Your task to perform on an android device: Clear the cart on amazon.com. Search for "alienware area 51" on amazon.com, select the first entry, add it to the cart, then select checkout. Image 0: 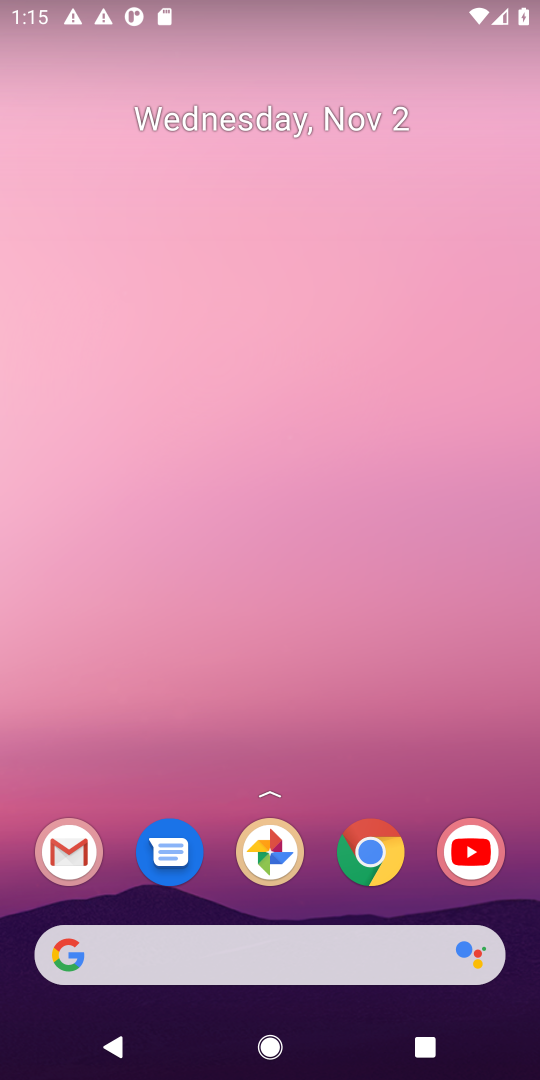
Step 0: press home button
Your task to perform on an android device: Clear the cart on amazon.com. Search for "alienware area 51" on amazon.com, select the first entry, add it to the cart, then select checkout. Image 1: 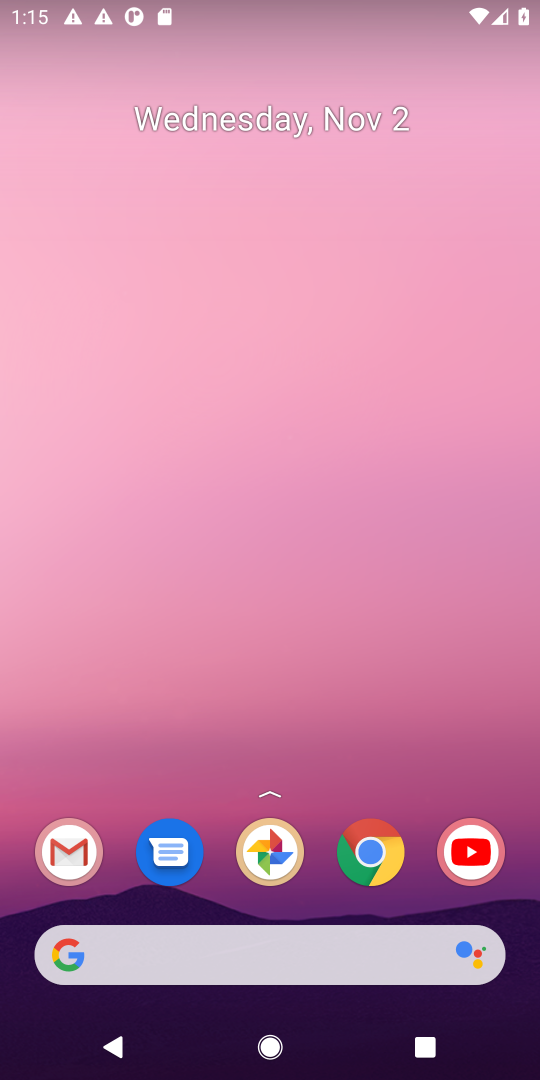
Step 1: click (67, 950)
Your task to perform on an android device: Clear the cart on amazon.com. Search for "alienware area 51" on amazon.com, select the first entry, add it to the cart, then select checkout. Image 2: 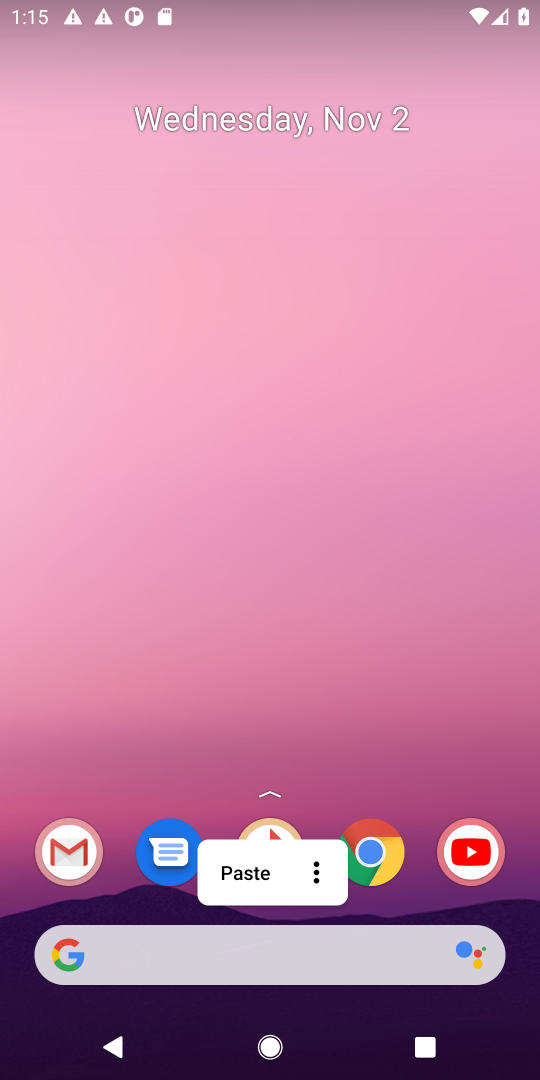
Step 2: click (71, 953)
Your task to perform on an android device: Clear the cart on amazon.com. Search for "alienware area 51" on amazon.com, select the first entry, add it to the cart, then select checkout. Image 3: 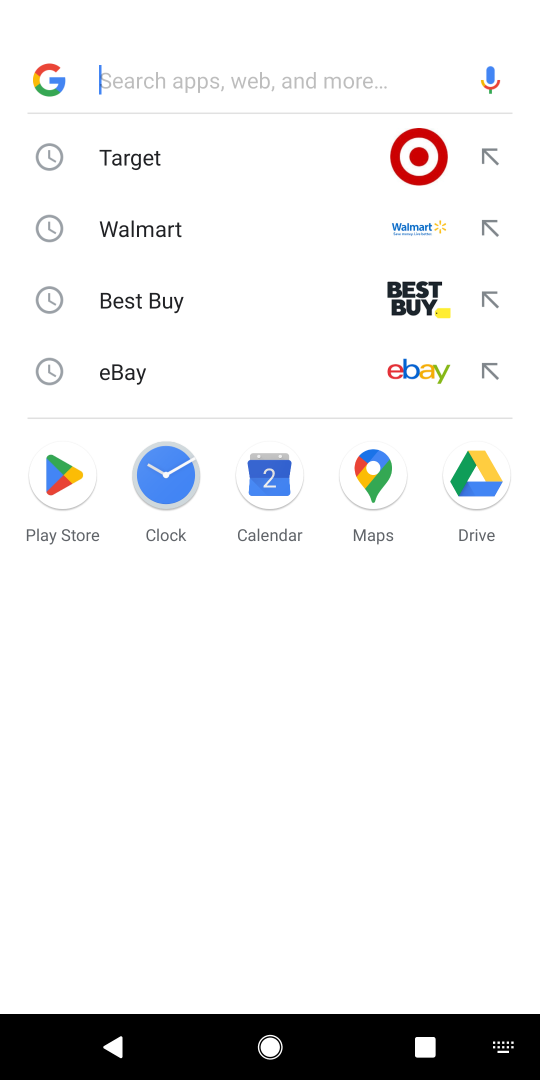
Step 3: type "amazon.com"
Your task to perform on an android device: Clear the cart on amazon.com. Search for "alienware area 51" on amazon.com, select the first entry, add it to the cart, then select checkout. Image 4: 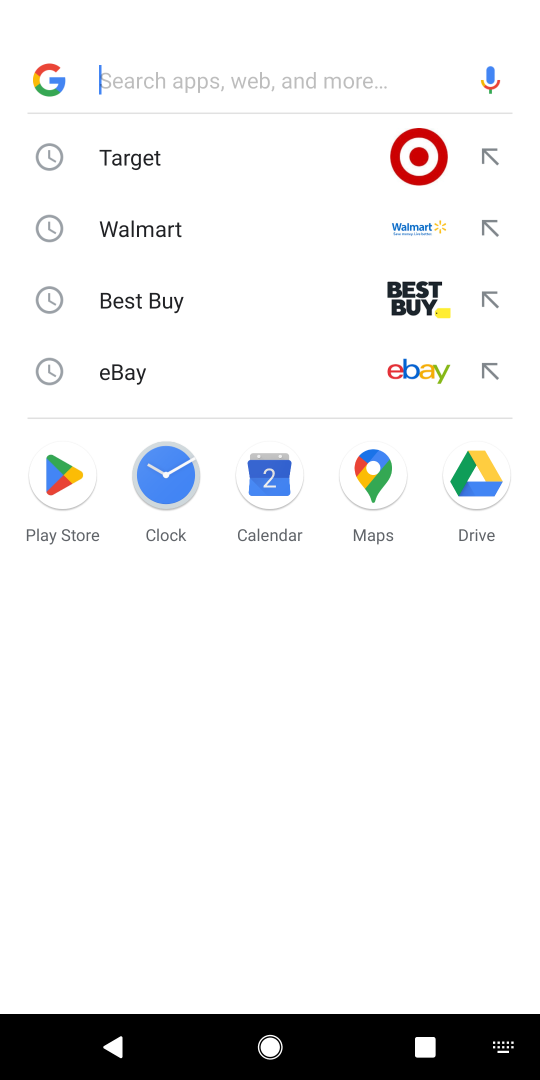
Step 4: click (152, 80)
Your task to perform on an android device: Clear the cart on amazon.com. Search for "alienware area 51" on amazon.com, select the first entry, add it to the cart, then select checkout. Image 5: 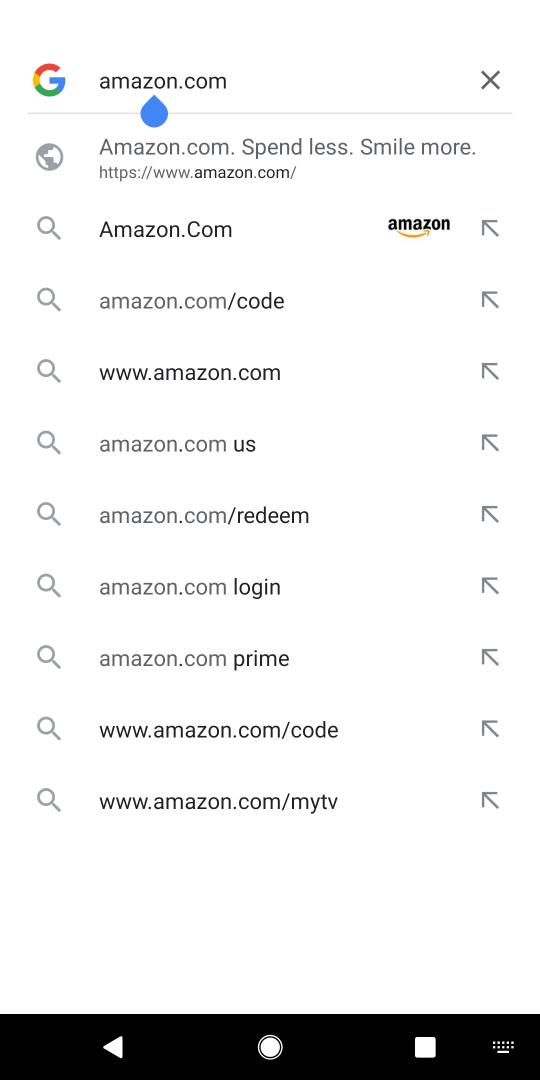
Step 5: press enter
Your task to perform on an android device: Clear the cart on amazon.com. Search for "alienware area 51" on amazon.com, select the first entry, add it to the cart, then select checkout. Image 6: 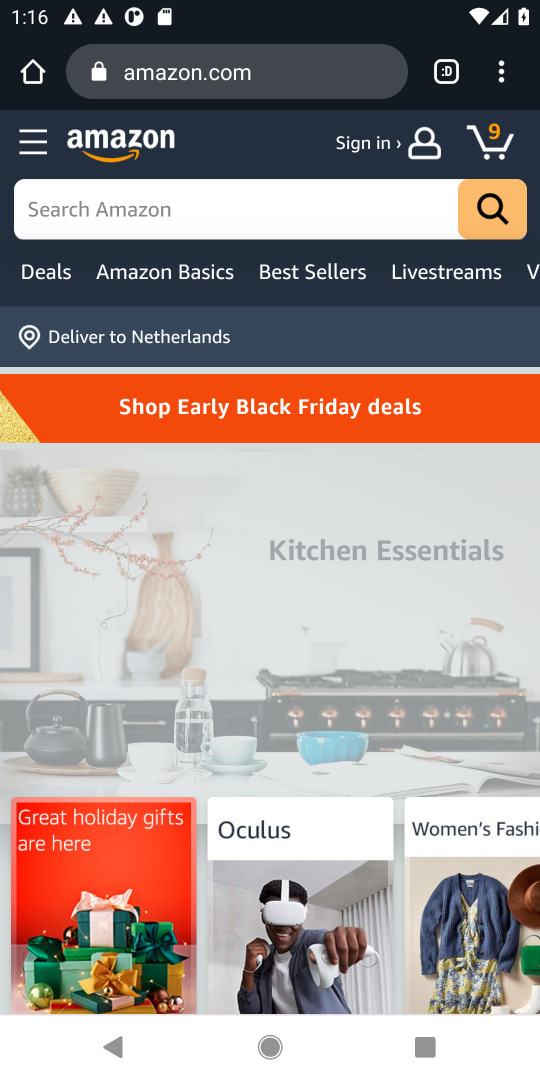
Step 6: click (503, 144)
Your task to perform on an android device: Clear the cart on amazon.com. Search for "alienware area 51" on amazon.com, select the first entry, add it to the cart, then select checkout. Image 7: 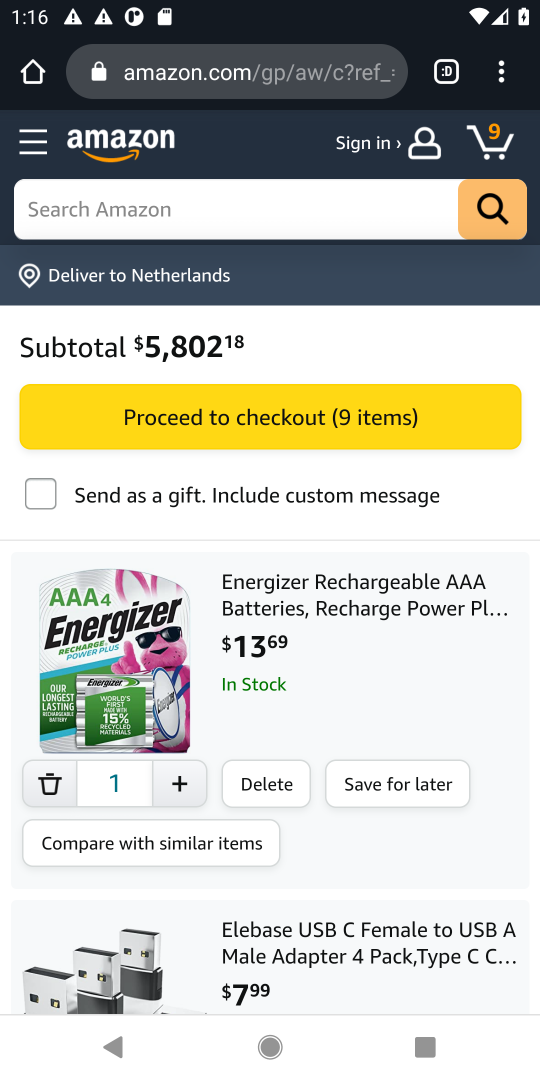
Step 7: click (274, 786)
Your task to perform on an android device: Clear the cart on amazon.com. Search for "alienware area 51" on amazon.com, select the first entry, add it to the cart, then select checkout. Image 8: 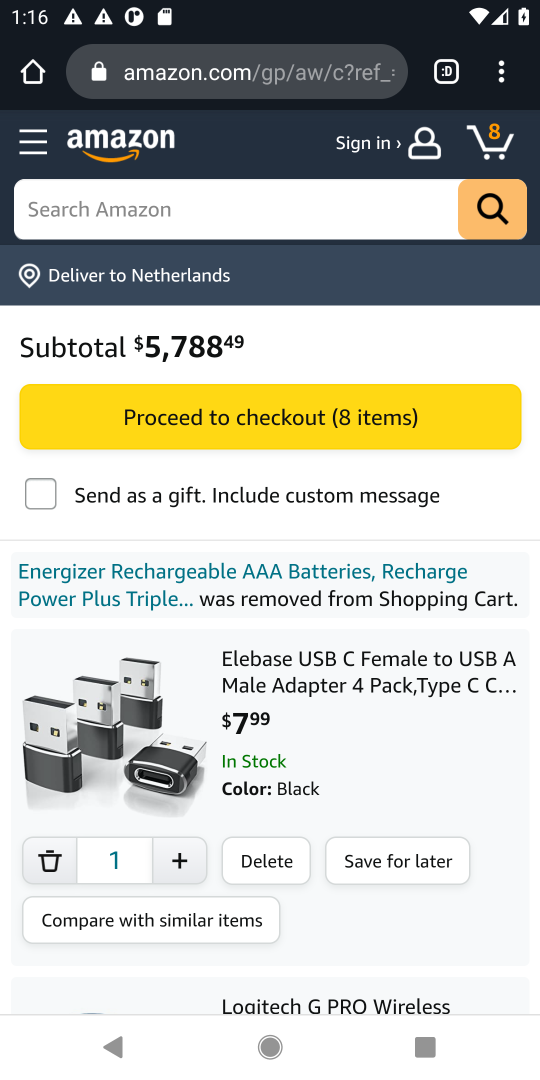
Step 8: click (269, 856)
Your task to perform on an android device: Clear the cart on amazon.com. Search for "alienware area 51" on amazon.com, select the first entry, add it to the cart, then select checkout. Image 9: 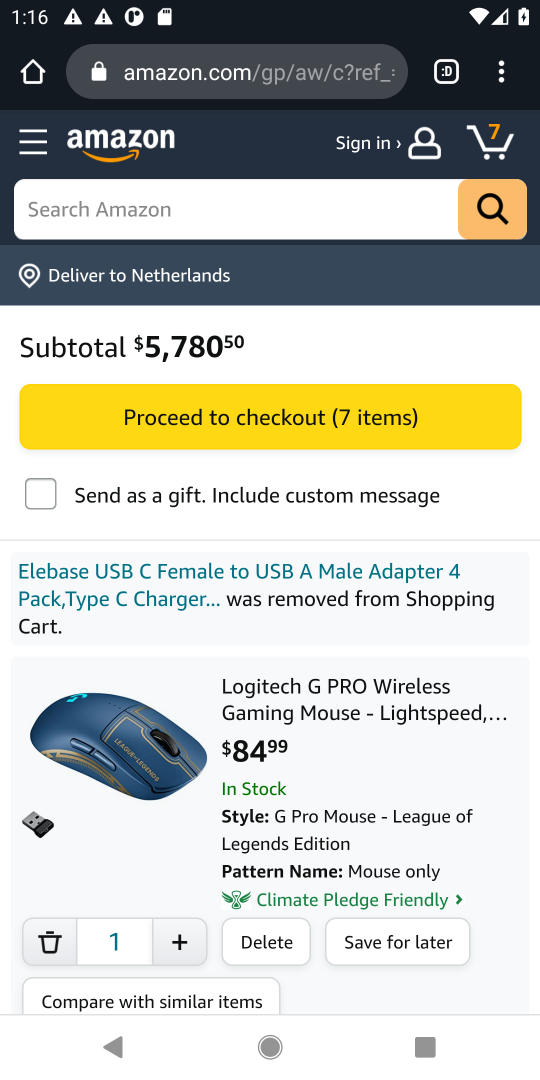
Step 9: click (268, 941)
Your task to perform on an android device: Clear the cart on amazon.com. Search for "alienware area 51" on amazon.com, select the first entry, add it to the cart, then select checkout. Image 10: 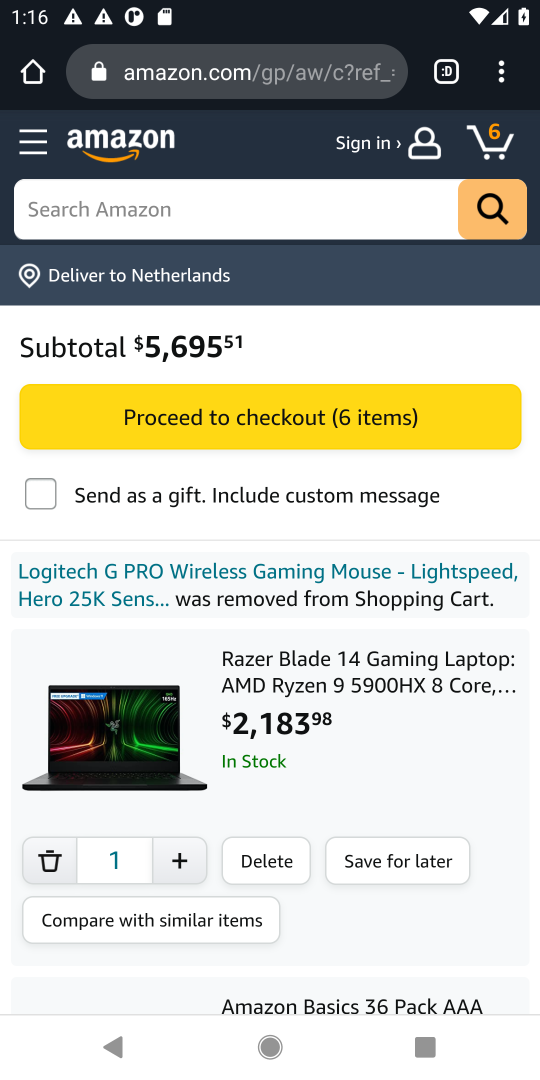
Step 10: click (263, 856)
Your task to perform on an android device: Clear the cart on amazon.com. Search for "alienware area 51" on amazon.com, select the first entry, add it to the cart, then select checkout. Image 11: 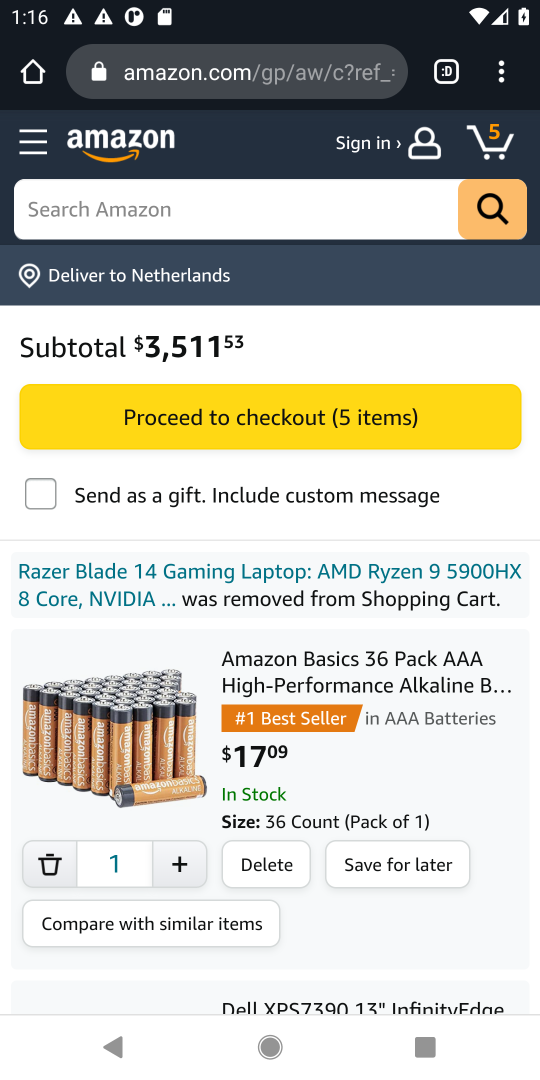
Step 11: click (269, 871)
Your task to perform on an android device: Clear the cart on amazon.com. Search for "alienware area 51" on amazon.com, select the first entry, add it to the cart, then select checkout. Image 12: 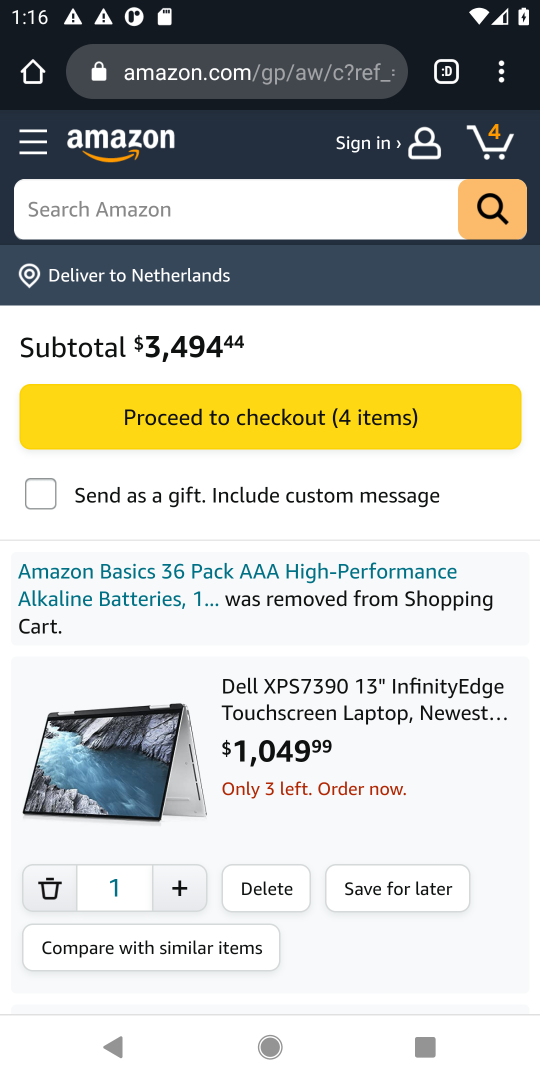
Step 12: click (283, 898)
Your task to perform on an android device: Clear the cart on amazon.com. Search for "alienware area 51" on amazon.com, select the first entry, add it to the cart, then select checkout. Image 13: 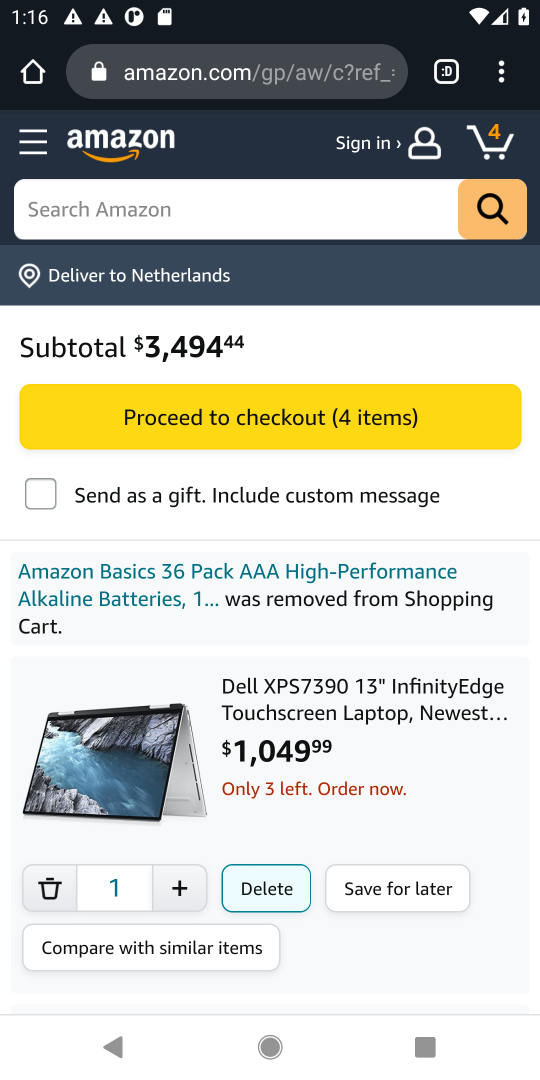
Step 13: click (288, 891)
Your task to perform on an android device: Clear the cart on amazon.com. Search for "alienware area 51" on amazon.com, select the first entry, add it to the cart, then select checkout. Image 14: 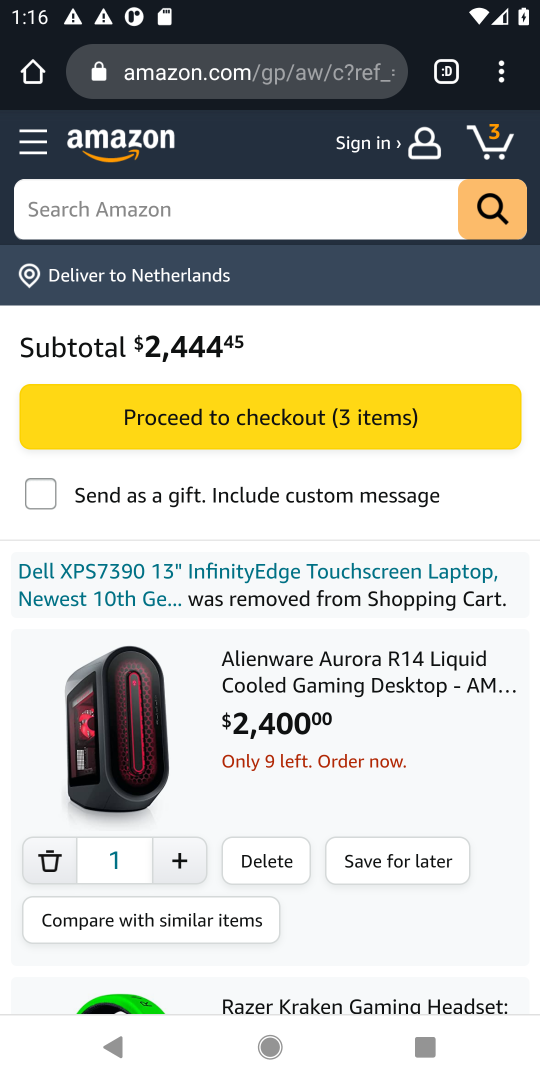
Step 14: click (267, 861)
Your task to perform on an android device: Clear the cart on amazon.com. Search for "alienware area 51" on amazon.com, select the first entry, add it to the cart, then select checkout. Image 15: 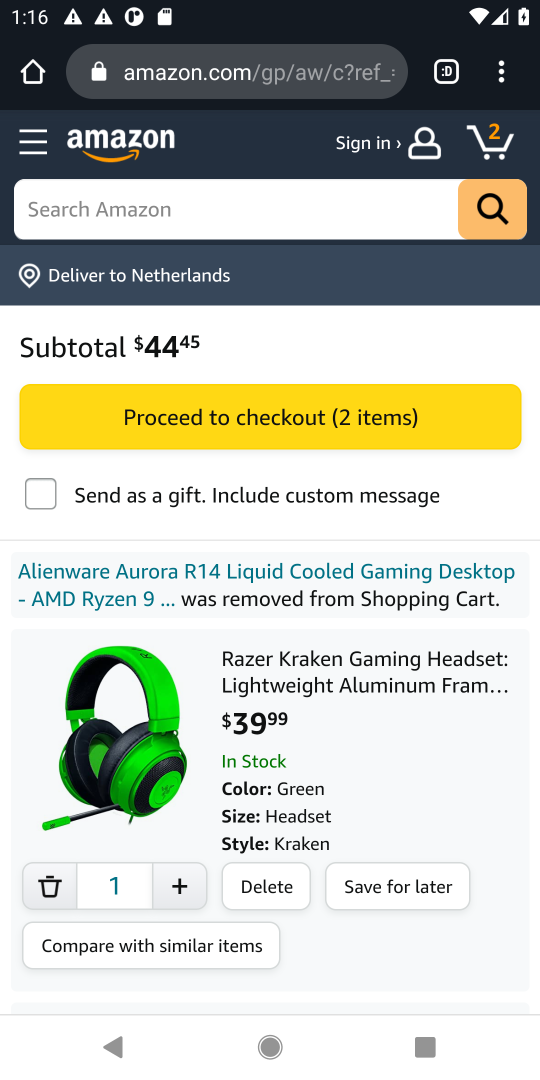
Step 15: click (274, 903)
Your task to perform on an android device: Clear the cart on amazon.com. Search for "alienware area 51" on amazon.com, select the first entry, add it to the cart, then select checkout. Image 16: 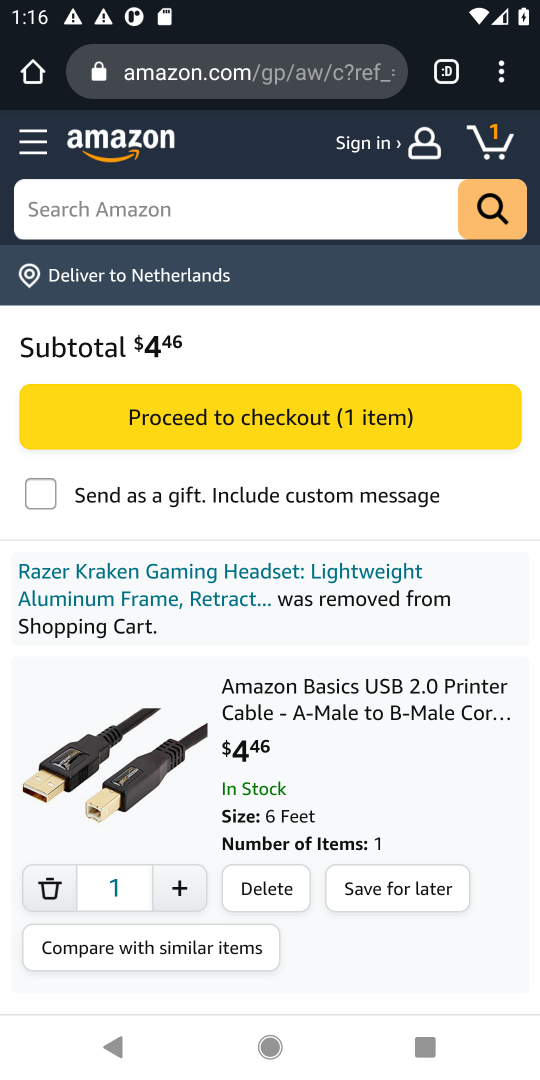
Step 16: click (279, 893)
Your task to perform on an android device: Clear the cart on amazon.com. Search for "alienware area 51" on amazon.com, select the first entry, add it to the cart, then select checkout. Image 17: 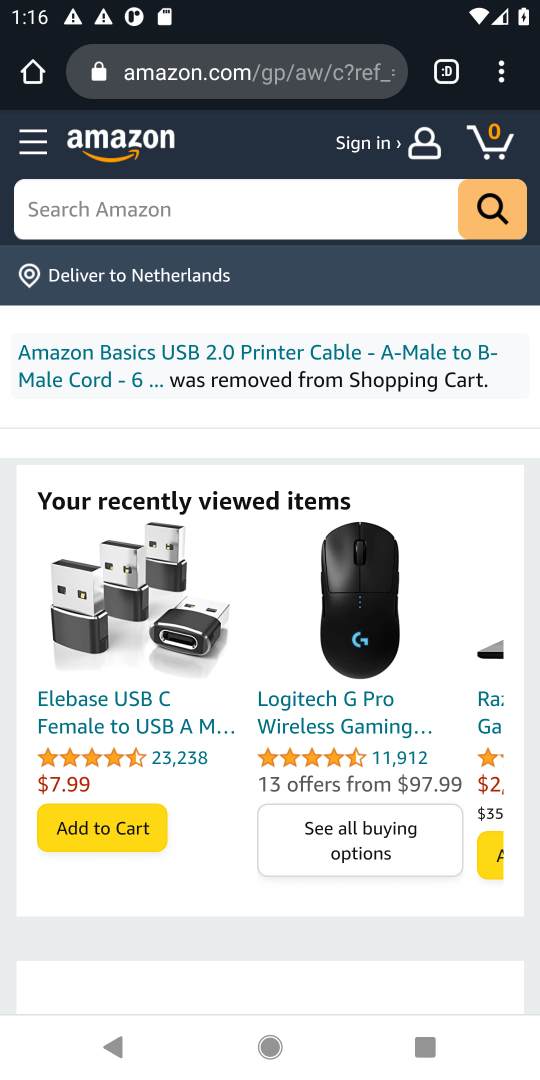
Step 17: click (340, 196)
Your task to perform on an android device: Clear the cart on amazon.com. Search for "alienware area 51" on amazon.com, select the first entry, add it to the cart, then select checkout. Image 18: 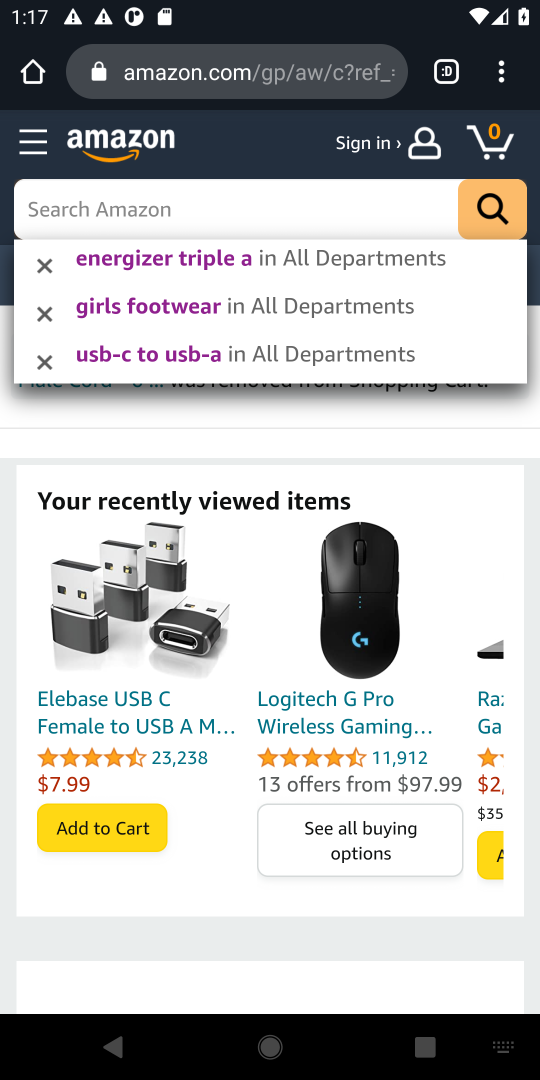
Step 18: type "alienware area 51"
Your task to perform on an android device: Clear the cart on amazon.com. Search for "alienware area 51" on amazon.com, select the first entry, add it to the cart, then select checkout. Image 19: 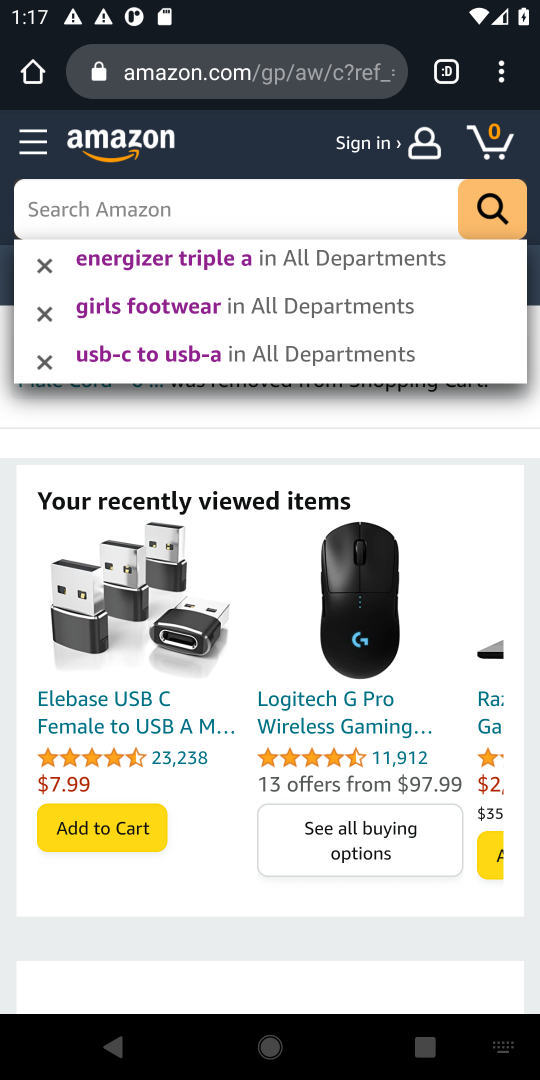
Step 19: click (83, 204)
Your task to perform on an android device: Clear the cart on amazon.com. Search for "alienware area 51" on amazon.com, select the first entry, add it to the cart, then select checkout. Image 20: 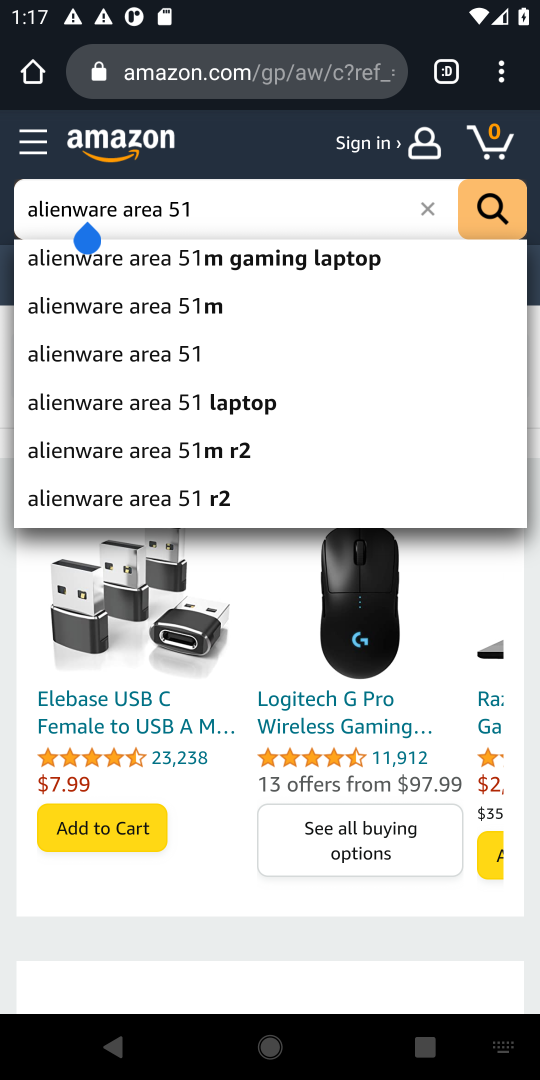
Step 20: press enter
Your task to perform on an android device: Clear the cart on amazon.com. Search for "alienware area 51" on amazon.com, select the first entry, add it to the cart, then select checkout. Image 21: 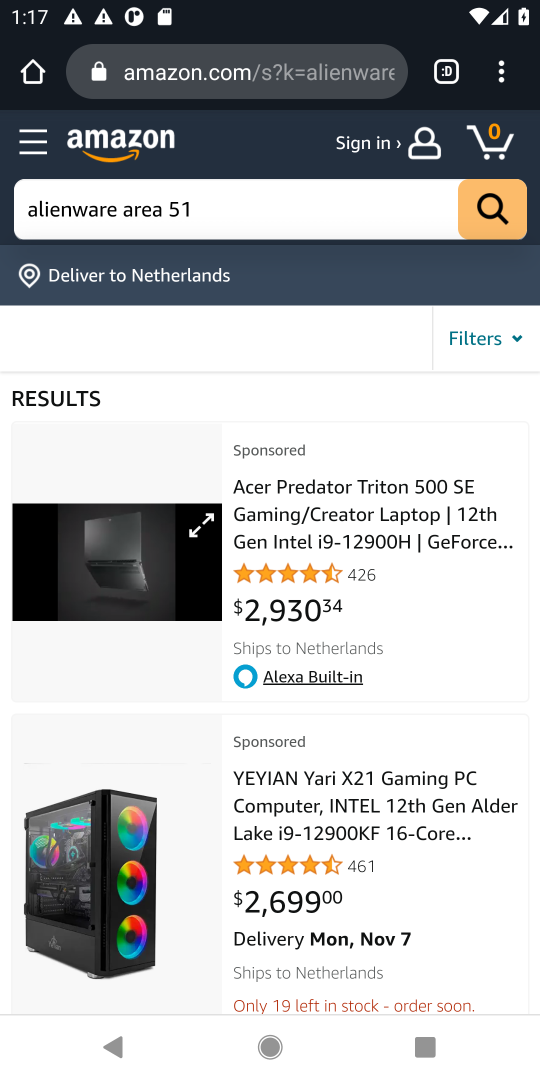
Step 21: drag from (463, 895) to (463, 542)
Your task to perform on an android device: Clear the cart on amazon.com. Search for "alienware area 51" on amazon.com, select the first entry, add it to the cart, then select checkout. Image 22: 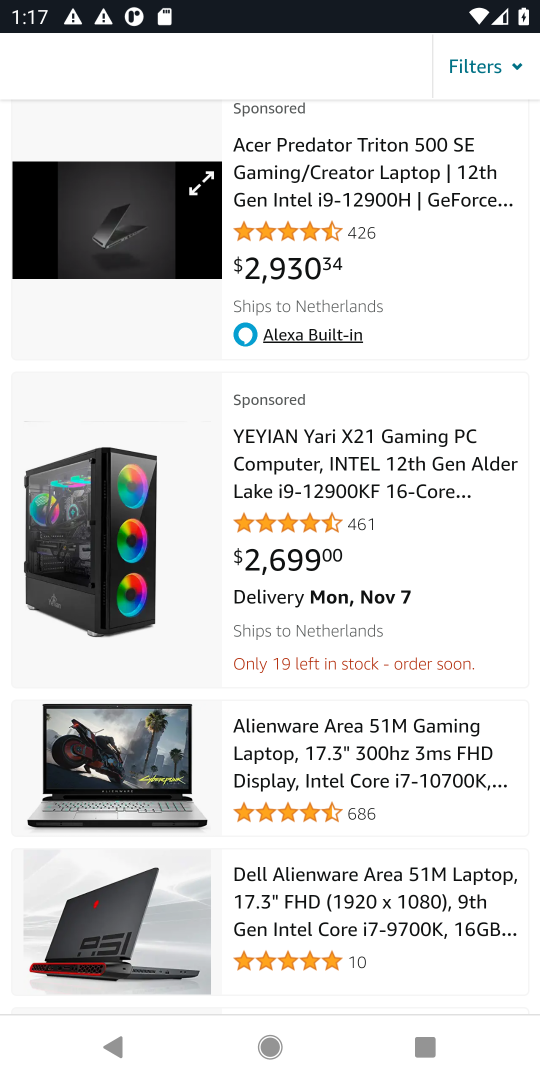
Step 22: click (371, 745)
Your task to perform on an android device: Clear the cart on amazon.com. Search for "alienware area 51" on amazon.com, select the first entry, add it to the cart, then select checkout. Image 23: 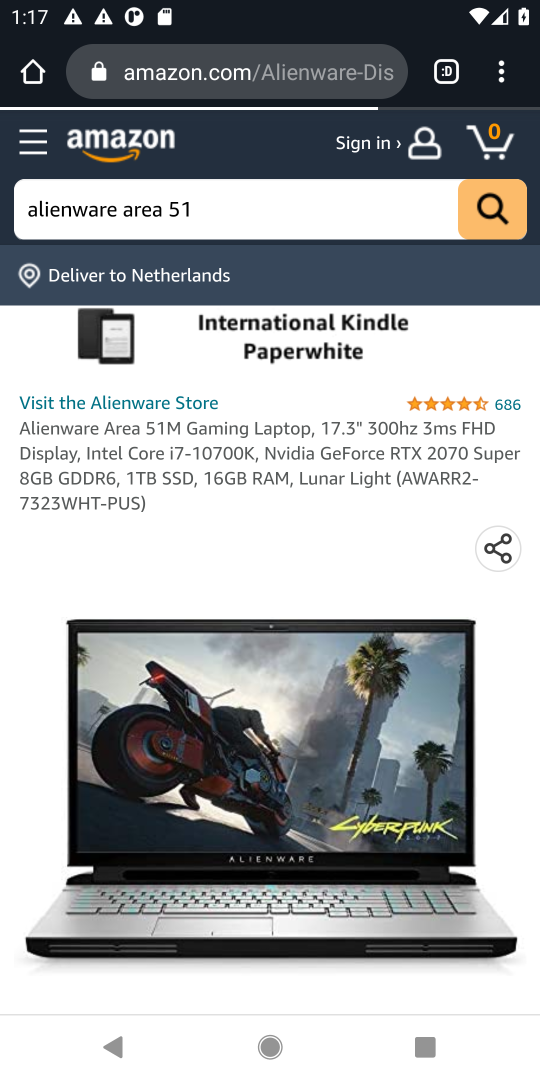
Step 23: drag from (386, 916) to (391, 403)
Your task to perform on an android device: Clear the cart on amazon.com. Search for "alienware area 51" on amazon.com, select the first entry, add it to the cart, then select checkout. Image 24: 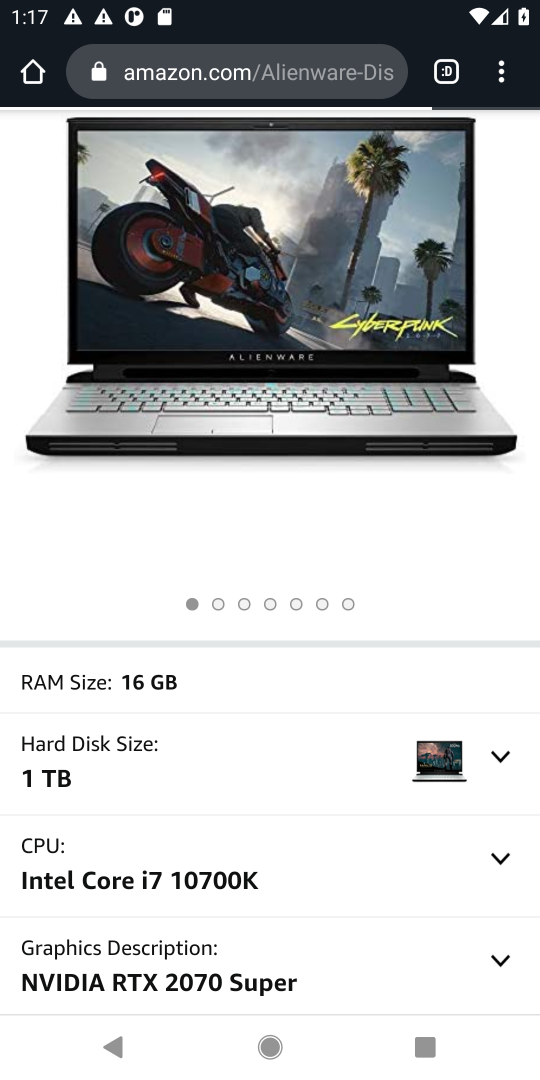
Step 24: drag from (393, 886) to (362, 220)
Your task to perform on an android device: Clear the cart on amazon.com. Search for "alienware area 51" on amazon.com, select the first entry, add it to the cart, then select checkout. Image 25: 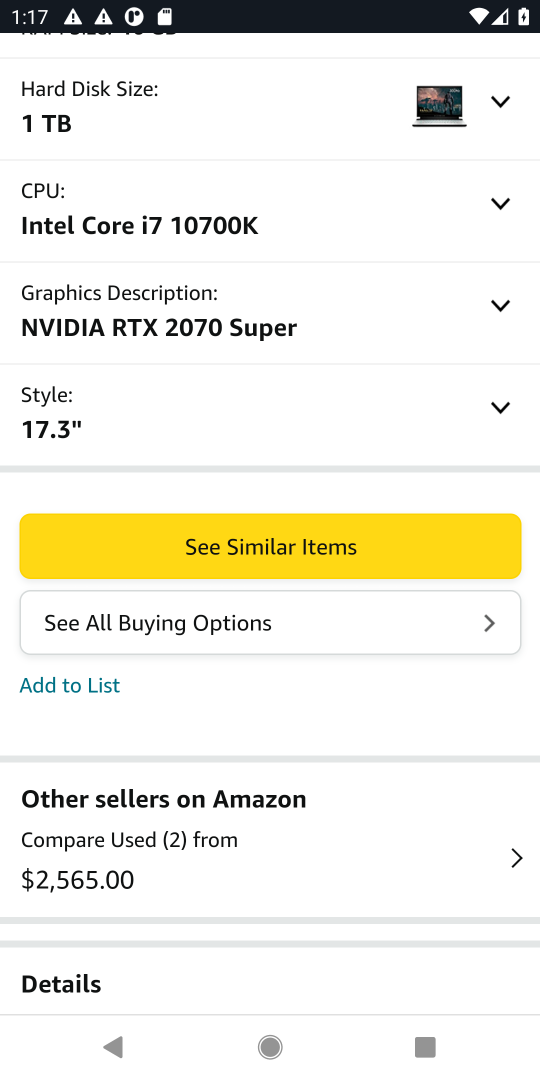
Step 25: drag from (285, 112) to (272, 525)
Your task to perform on an android device: Clear the cart on amazon.com. Search for "alienware area 51" on amazon.com, select the first entry, add it to the cart, then select checkout. Image 26: 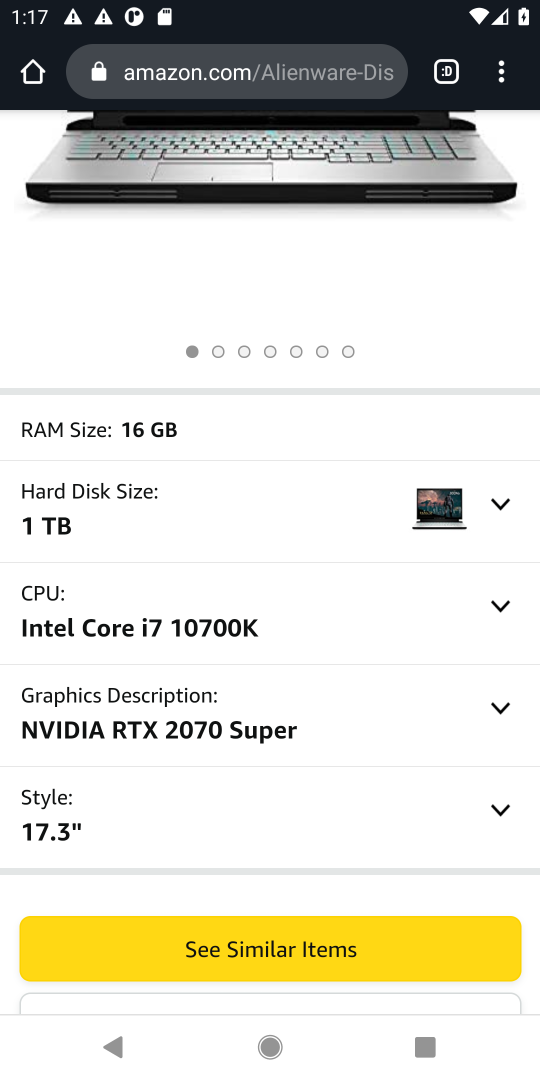
Step 26: click (501, 493)
Your task to perform on an android device: Clear the cart on amazon.com. Search for "alienware area 51" on amazon.com, select the first entry, add it to the cart, then select checkout. Image 27: 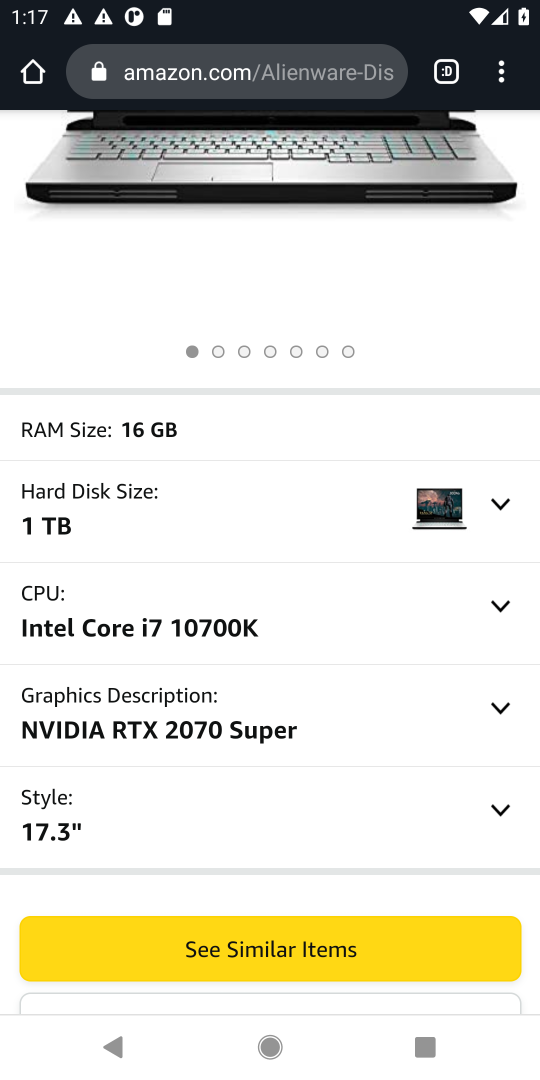
Step 27: click (496, 500)
Your task to perform on an android device: Clear the cart on amazon.com. Search for "alienware area 51" on amazon.com, select the first entry, add it to the cart, then select checkout. Image 28: 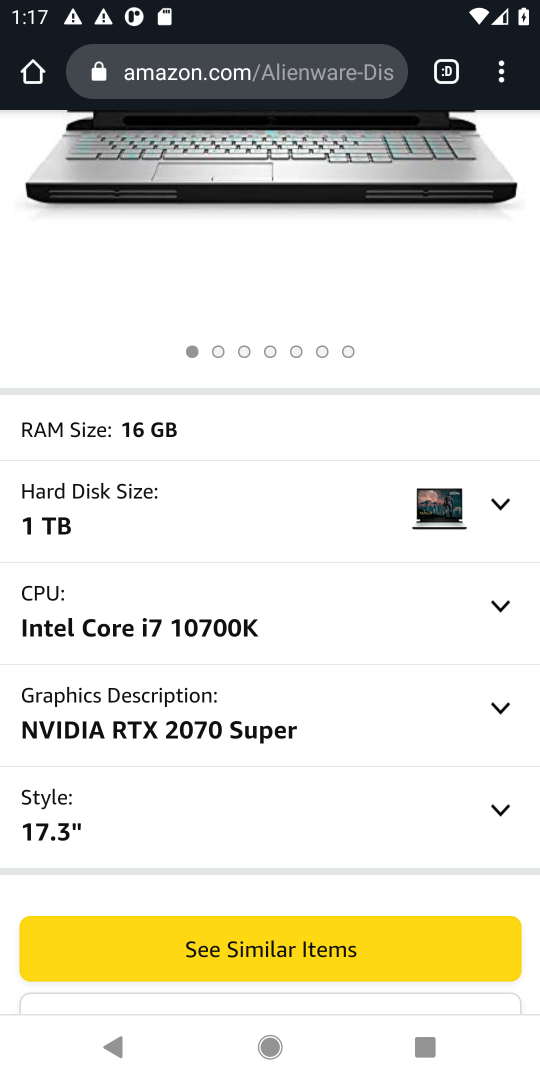
Step 28: click (496, 502)
Your task to perform on an android device: Clear the cart on amazon.com. Search for "alienware area 51" on amazon.com, select the first entry, add it to the cart, then select checkout. Image 29: 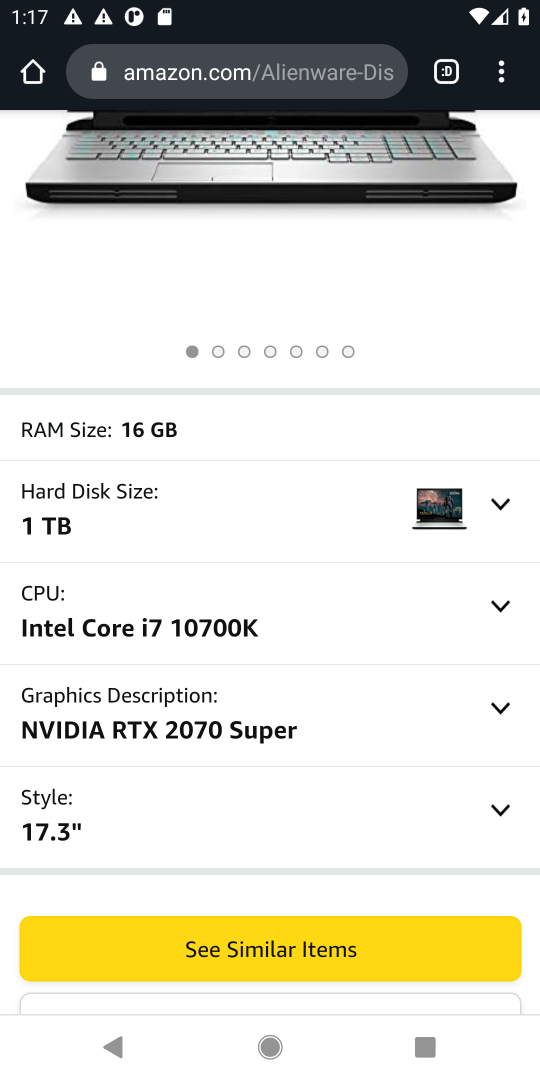
Step 29: click (496, 508)
Your task to perform on an android device: Clear the cart on amazon.com. Search for "alienware area 51" on amazon.com, select the first entry, add it to the cart, then select checkout. Image 30: 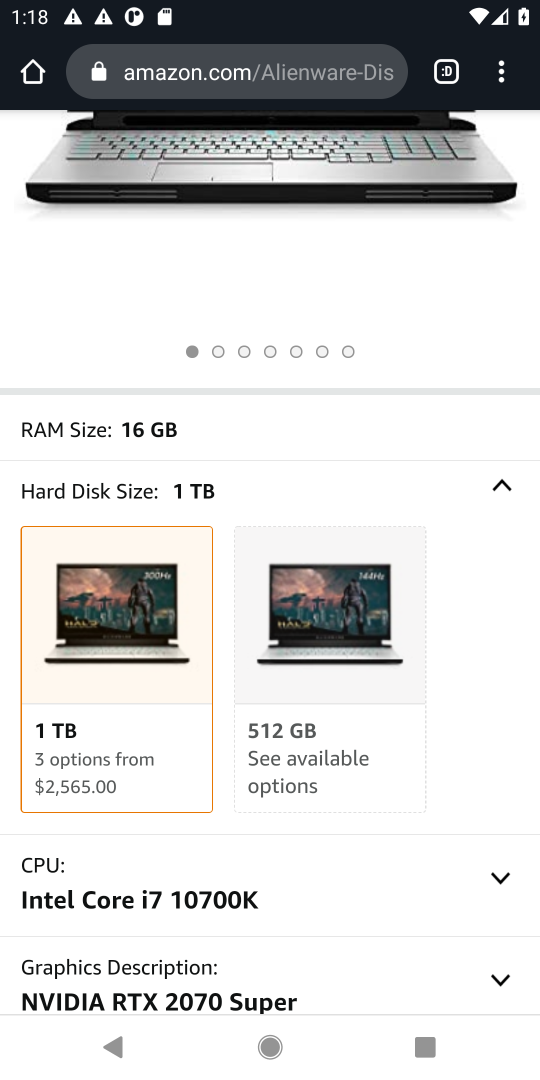
Step 30: click (111, 600)
Your task to perform on an android device: Clear the cart on amazon.com. Search for "alienware area 51" on amazon.com, select the first entry, add it to the cart, then select checkout. Image 31: 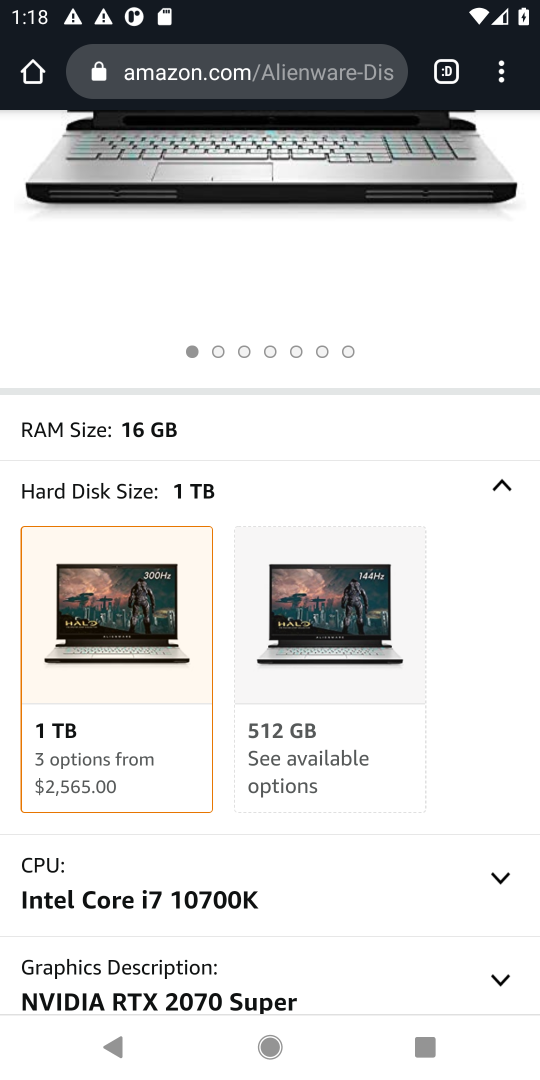
Step 31: click (501, 883)
Your task to perform on an android device: Clear the cart on amazon.com. Search for "alienware area 51" on amazon.com, select the first entry, add it to the cart, then select checkout. Image 32: 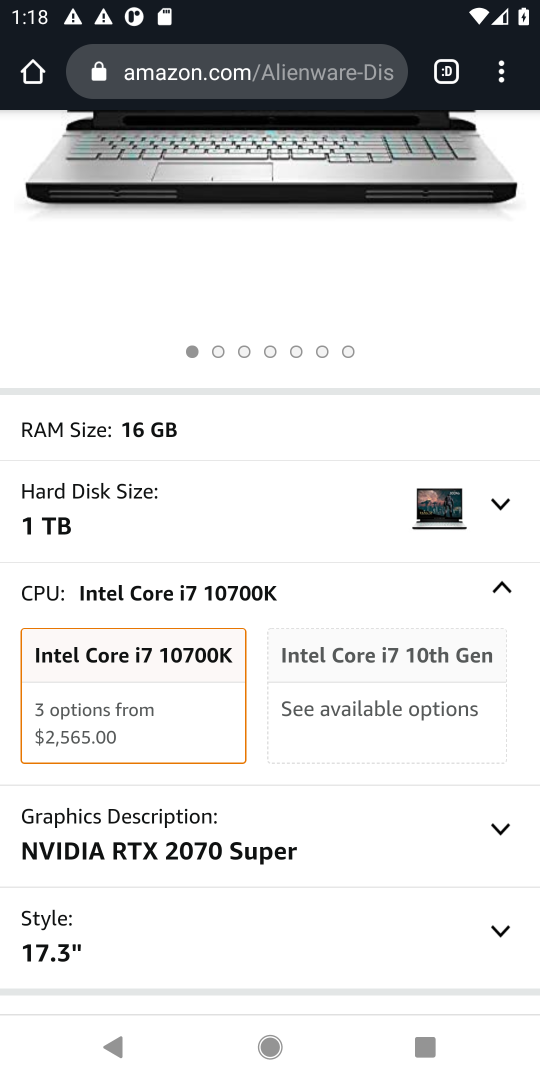
Step 32: click (125, 708)
Your task to perform on an android device: Clear the cart on amazon.com. Search for "alienware area 51" on amazon.com, select the first entry, add it to the cart, then select checkout. Image 33: 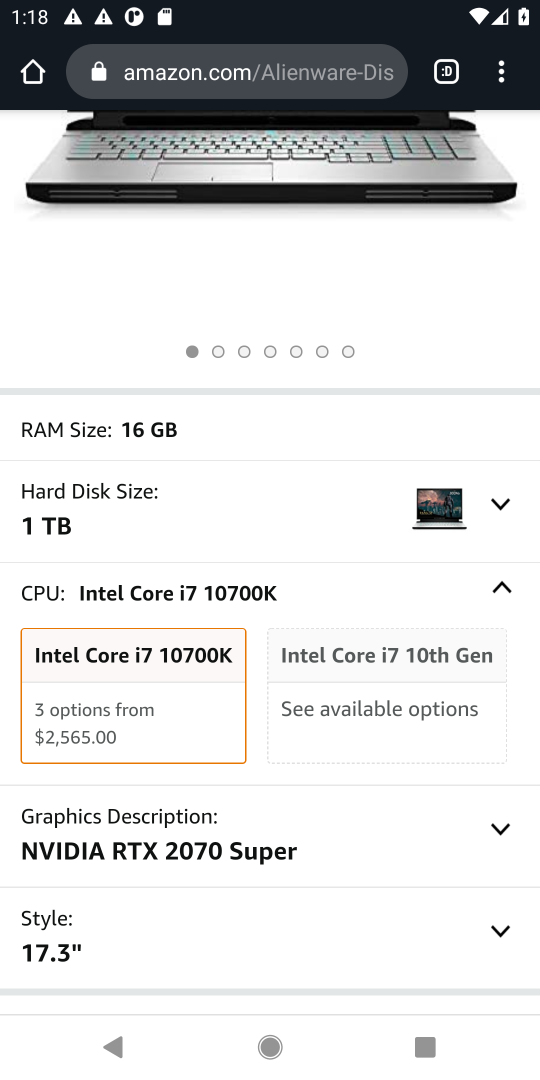
Step 33: drag from (413, 906) to (364, 293)
Your task to perform on an android device: Clear the cart on amazon.com. Search for "alienware area 51" on amazon.com, select the first entry, add it to the cart, then select checkout. Image 34: 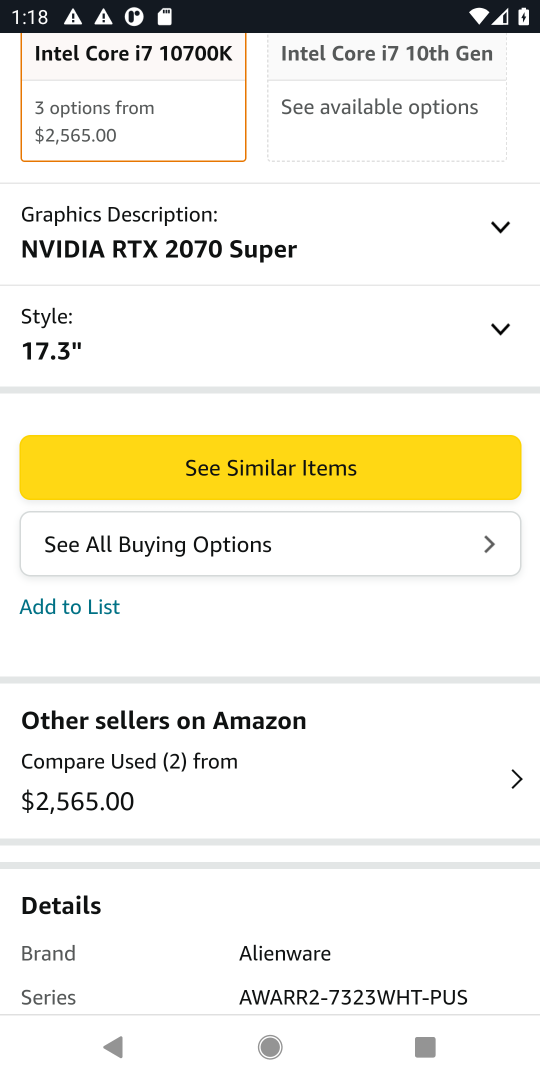
Step 34: click (195, 341)
Your task to perform on an android device: Clear the cart on amazon.com. Search for "alienware area 51" on amazon.com, select the first entry, add it to the cart, then select checkout. Image 35: 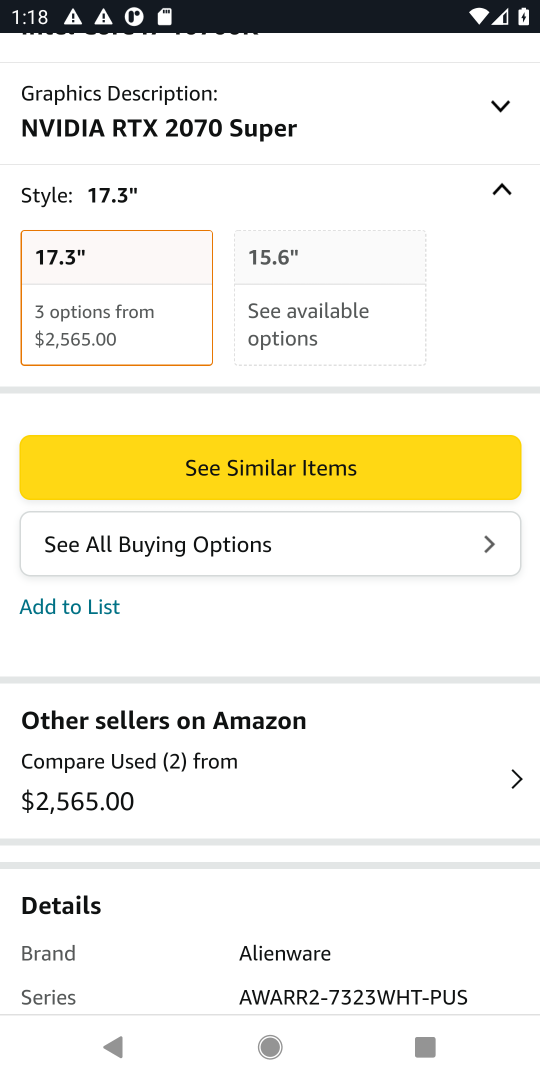
Step 35: click (79, 285)
Your task to perform on an android device: Clear the cart on amazon.com. Search for "alienware area 51" on amazon.com, select the first entry, add it to the cart, then select checkout. Image 36: 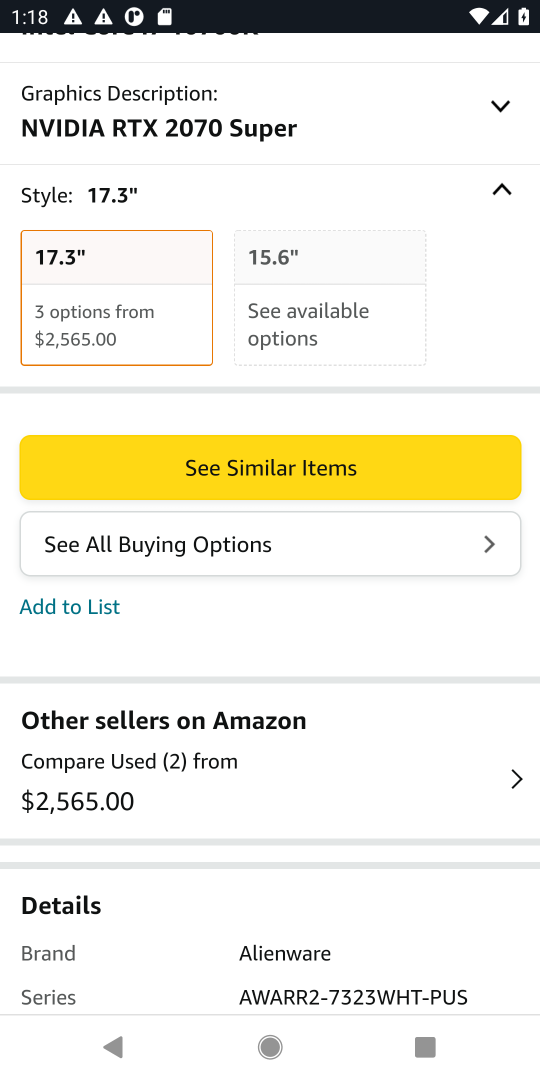
Step 36: click (311, 330)
Your task to perform on an android device: Clear the cart on amazon.com. Search for "alienware area 51" on amazon.com, select the first entry, add it to the cart, then select checkout. Image 37: 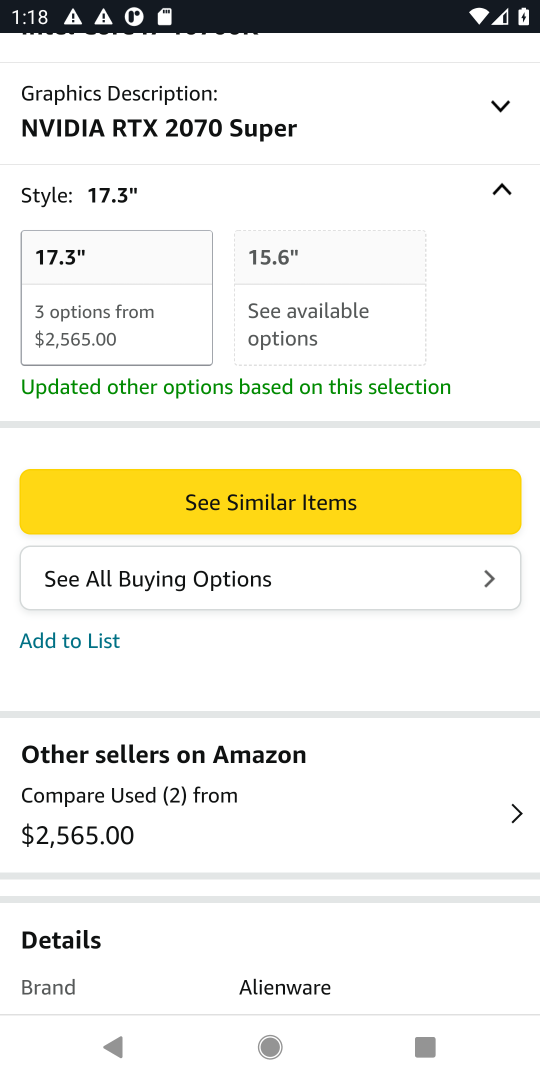
Step 37: click (313, 269)
Your task to perform on an android device: Clear the cart on amazon.com. Search for "alienware area 51" on amazon.com, select the first entry, add it to the cart, then select checkout. Image 38: 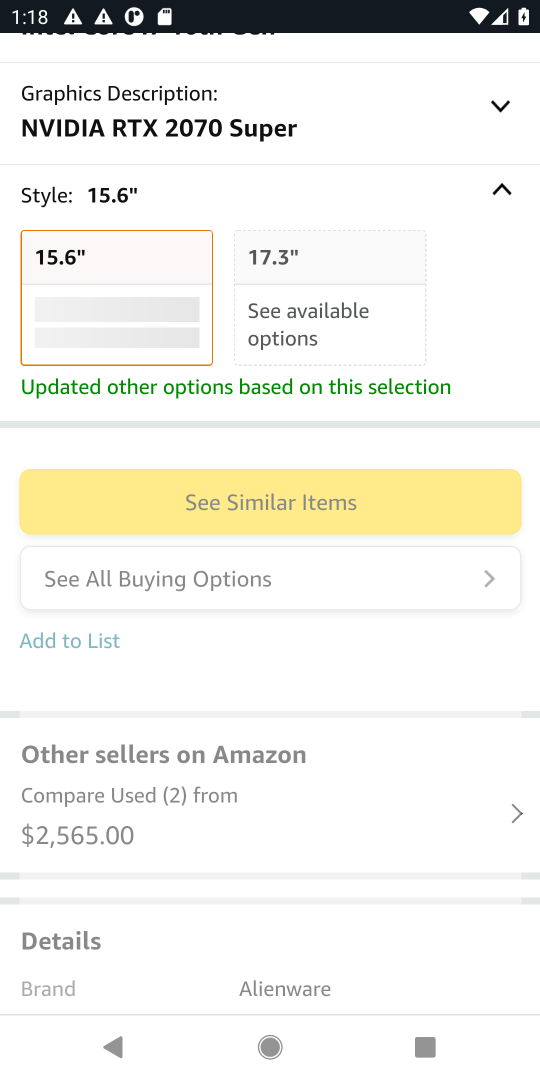
Step 38: click (114, 306)
Your task to perform on an android device: Clear the cart on amazon.com. Search for "alienware area 51" on amazon.com, select the first entry, add it to the cart, then select checkout. Image 39: 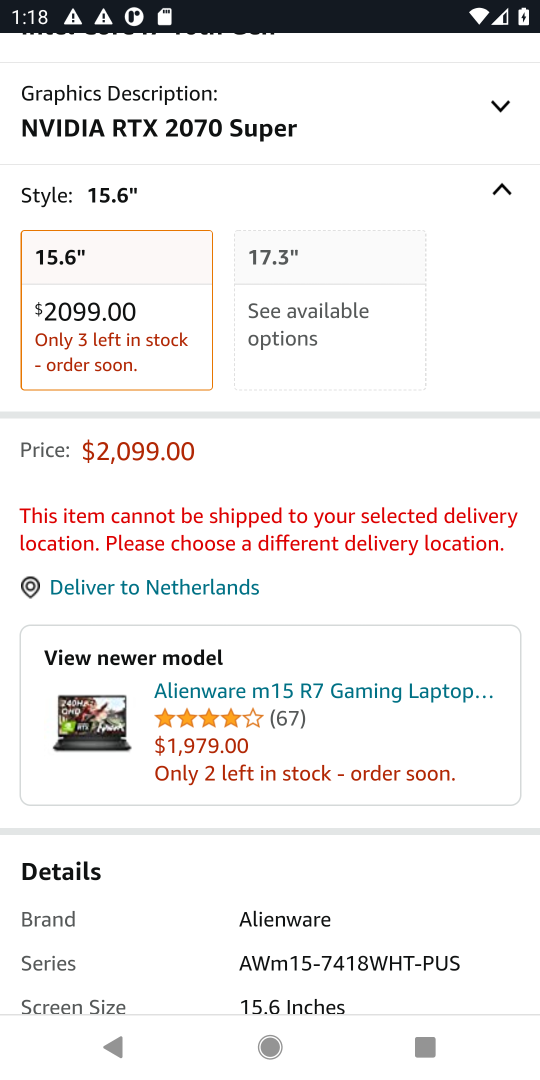
Step 39: task complete